Your task to perform on an android device: find snoozed emails in the gmail app Image 0: 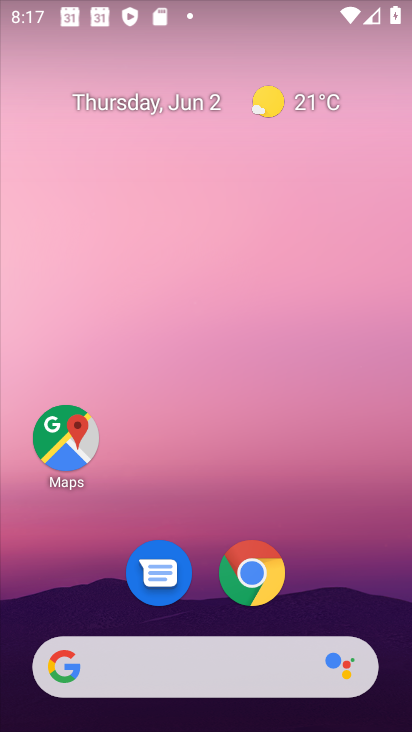
Step 0: drag from (313, 614) to (360, 116)
Your task to perform on an android device: find snoozed emails in the gmail app Image 1: 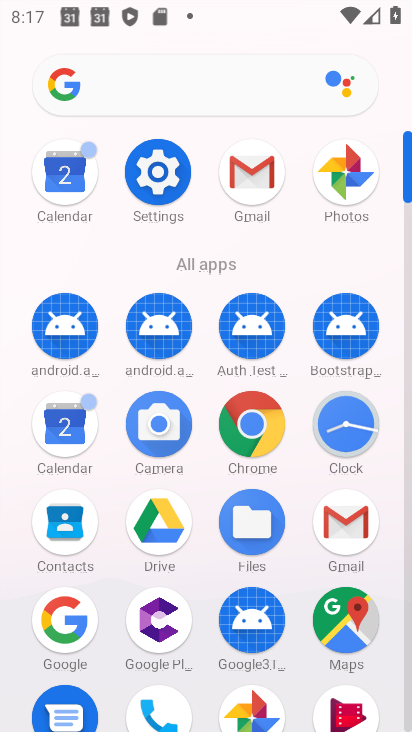
Step 1: click (256, 198)
Your task to perform on an android device: find snoozed emails in the gmail app Image 2: 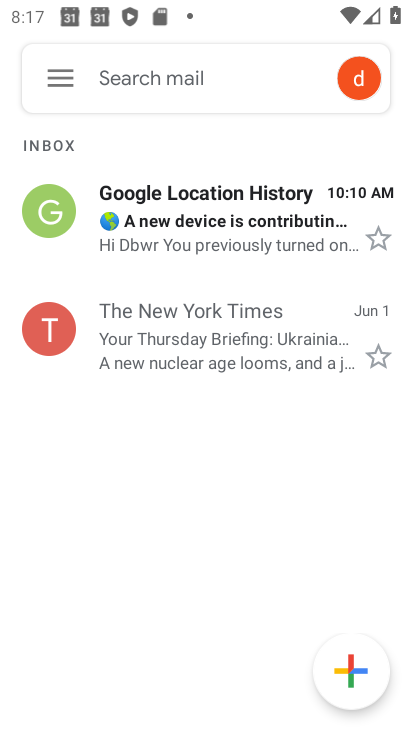
Step 2: click (57, 85)
Your task to perform on an android device: find snoozed emails in the gmail app Image 3: 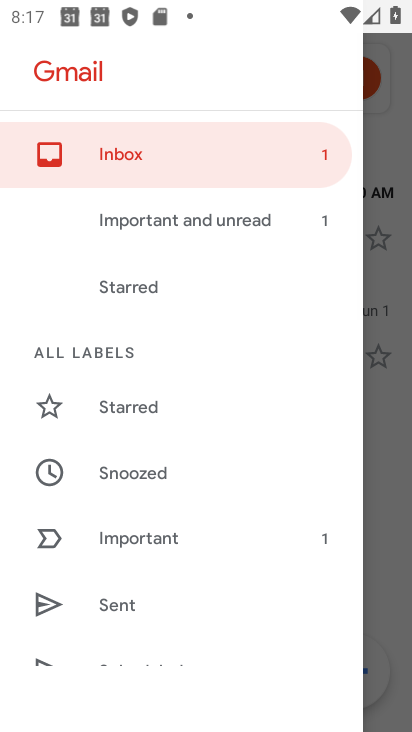
Step 3: click (142, 471)
Your task to perform on an android device: find snoozed emails in the gmail app Image 4: 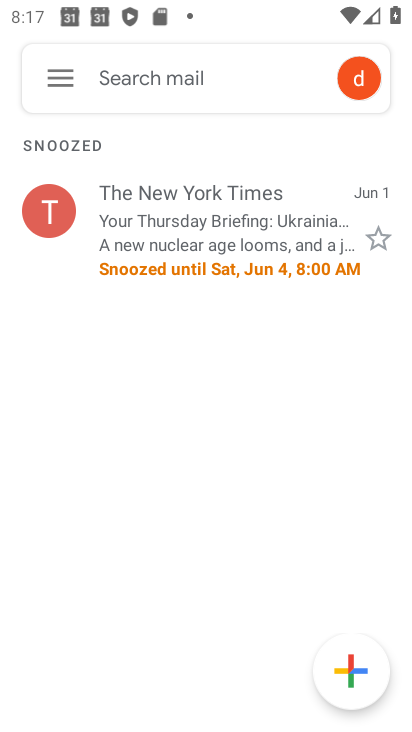
Step 4: task complete